Your task to perform on an android device: Show me recent news Image 0: 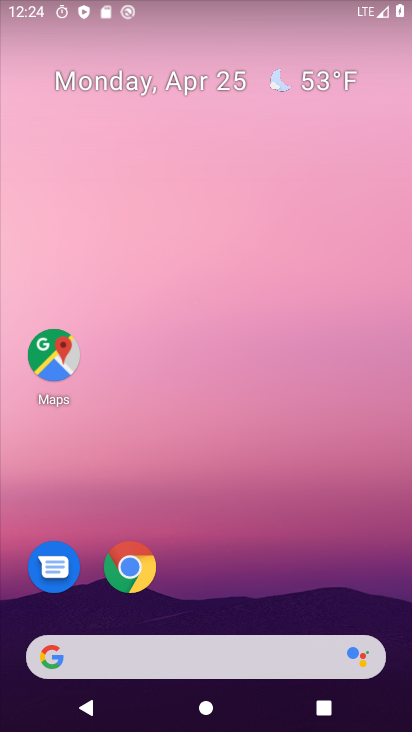
Step 0: click (187, 663)
Your task to perform on an android device: Show me recent news Image 1: 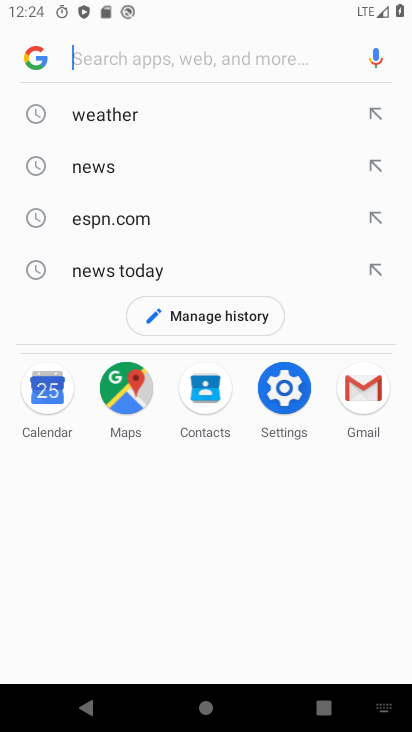
Step 1: click (97, 159)
Your task to perform on an android device: Show me recent news Image 2: 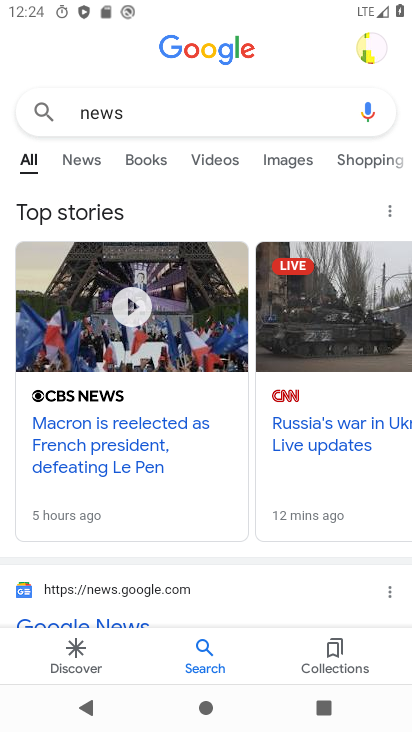
Step 2: task complete